Your task to perform on an android device: empty trash in google photos Image 0: 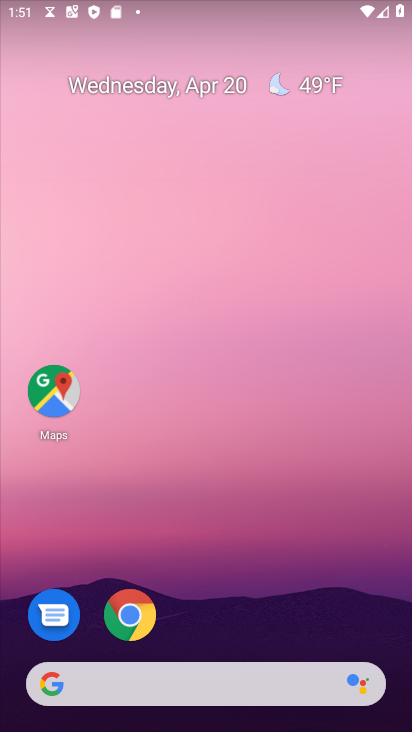
Step 0: drag from (13, 660) to (200, 156)
Your task to perform on an android device: empty trash in google photos Image 1: 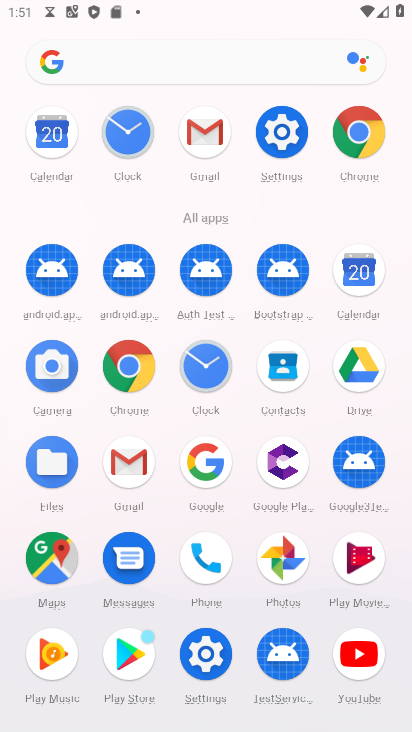
Step 1: click (283, 543)
Your task to perform on an android device: empty trash in google photos Image 2: 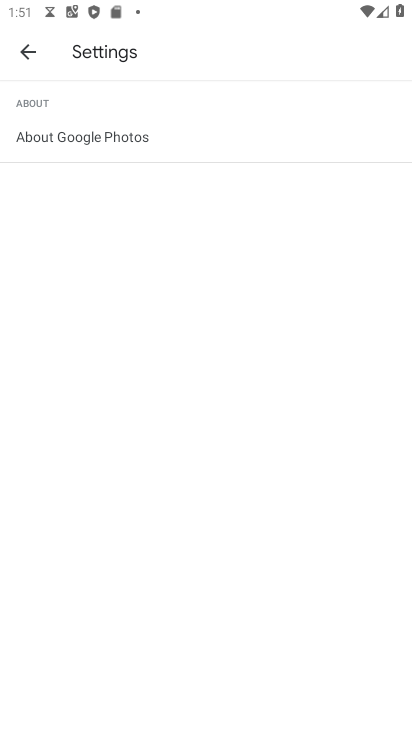
Step 2: press back button
Your task to perform on an android device: empty trash in google photos Image 3: 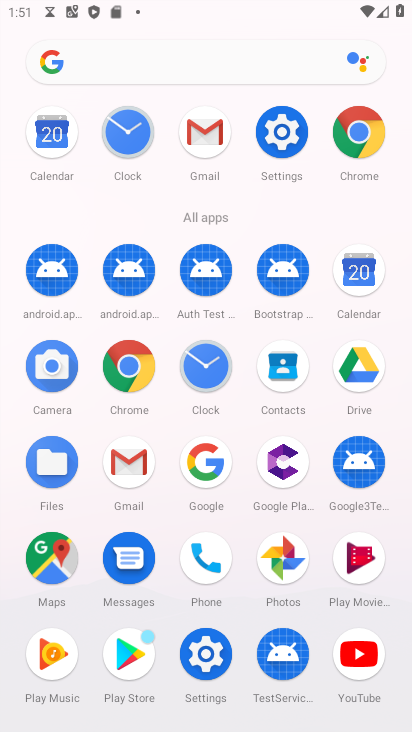
Step 3: click (281, 533)
Your task to perform on an android device: empty trash in google photos Image 4: 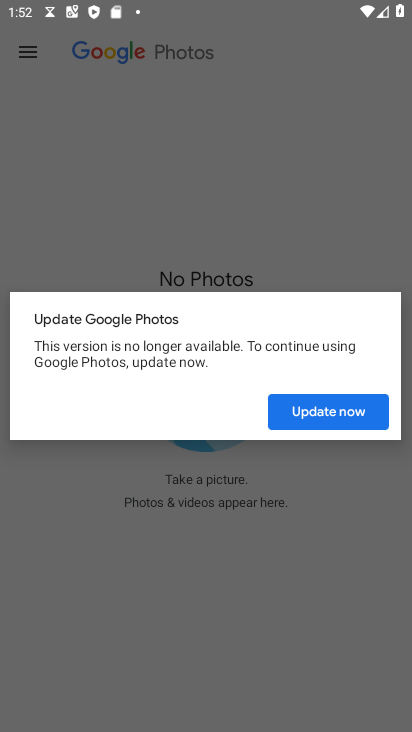
Step 4: click (374, 410)
Your task to perform on an android device: empty trash in google photos Image 5: 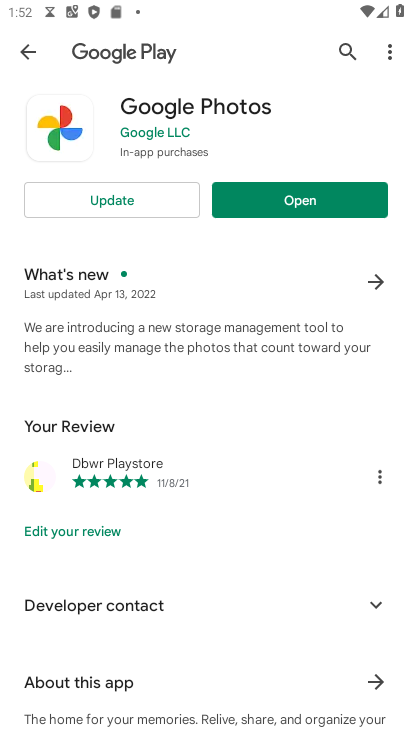
Step 5: click (248, 192)
Your task to perform on an android device: empty trash in google photos Image 6: 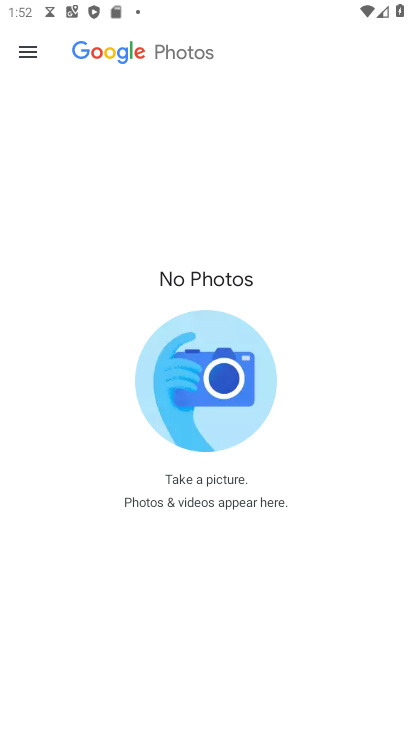
Step 6: click (11, 47)
Your task to perform on an android device: empty trash in google photos Image 7: 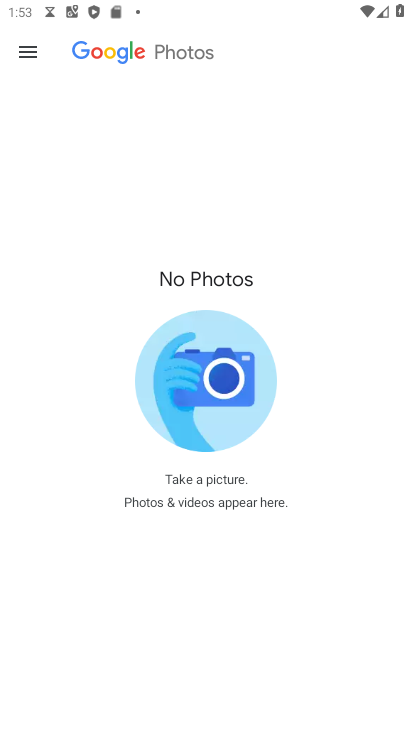
Step 7: click (27, 47)
Your task to perform on an android device: empty trash in google photos Image 8: 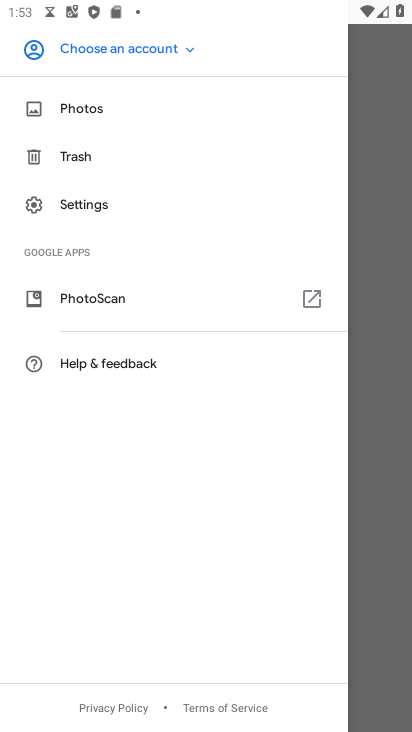
Step 8: click (64, 129)
Your task to perform on an android device: empty trash in google photos Image 9: 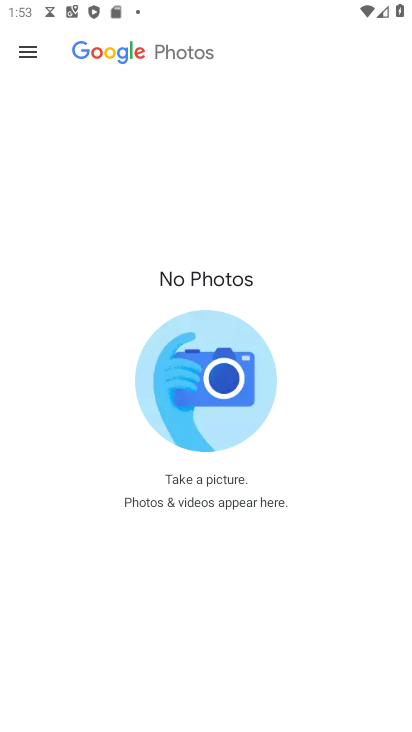
Step 9: click (25, 51)
Your task to perform on an android device: empty trash in google photos Image 10: 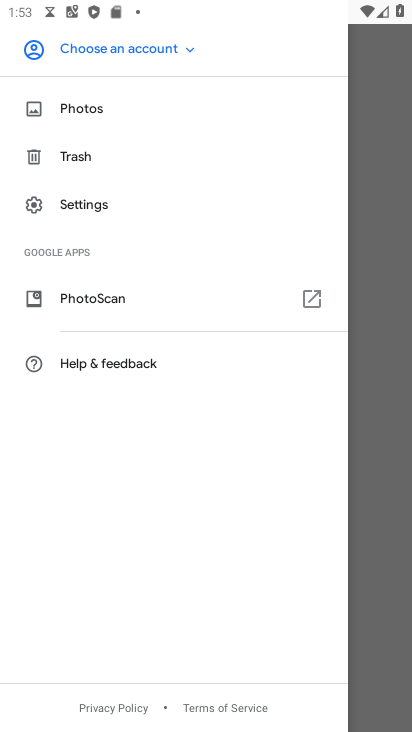
Step 10: click (45, 152)
Your task to perform on an android device: empty trash in google photos Image 11: 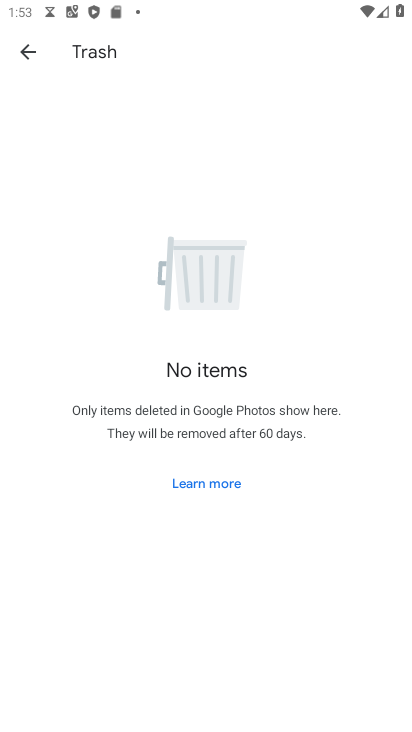
Step 11: task complete